Your task to perform on an android device: What's the weather going to be this weekend? Image 0: 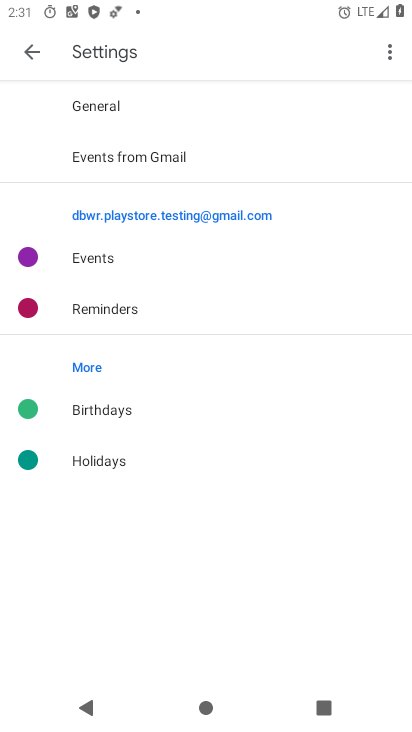
Step 0: press home button
Your task to perform on an android device: What's the weather going to be this weekend? Image 1: 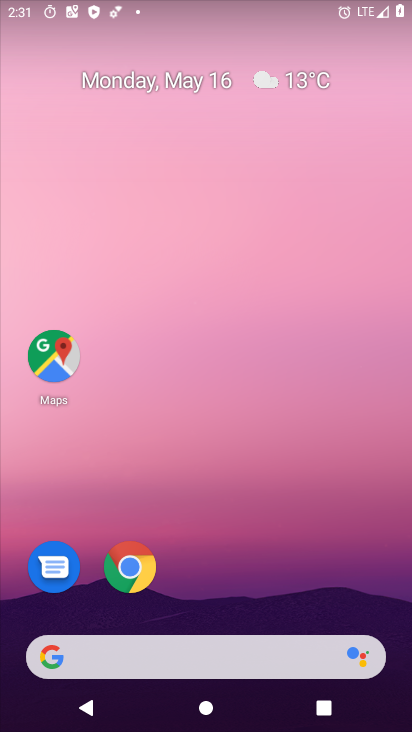
Step 1: drag from (227, 494) to (253, 303)
Your task to perform on an android device: What's the weather going to be this weekend? Image 2: 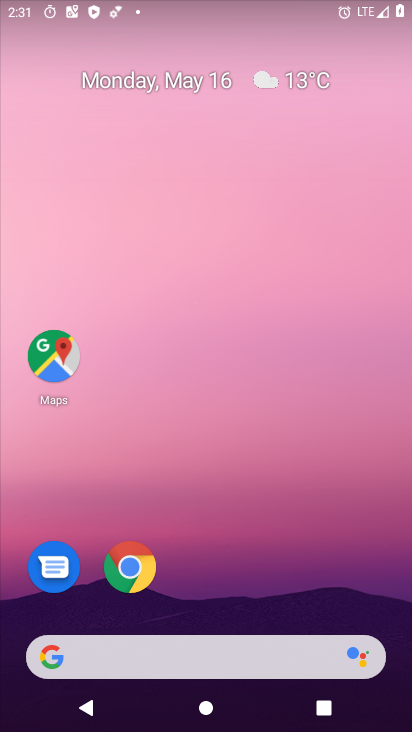
Step 2: click (108, 559)
Your task to perform on an android device: What's the weather going to be this weekend? Image 3: 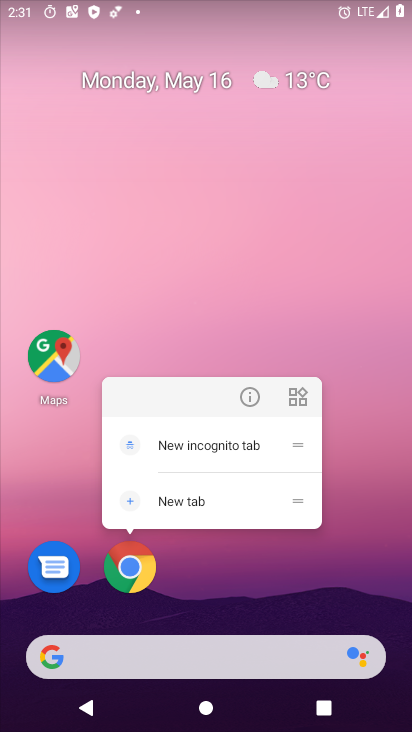
Step 3: click (153, 563)
Your task to perform on an android device: What's the weather going to be this weekend? Image 4: 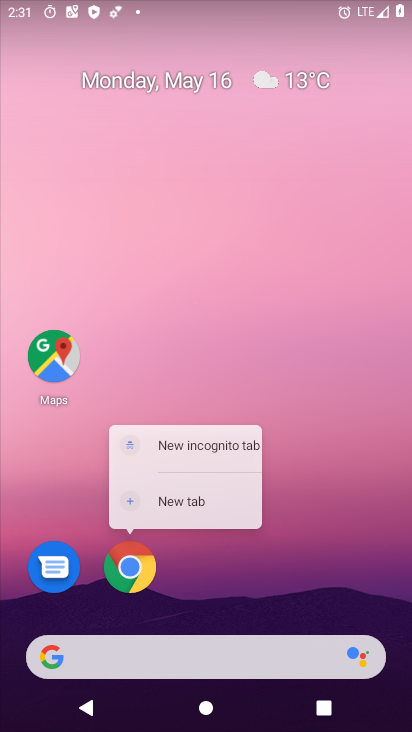
Step 4: drag from (195, 599) to (335, 115)
Your task to perform on an android device: What's the weather going to be this weekend? Image 5: 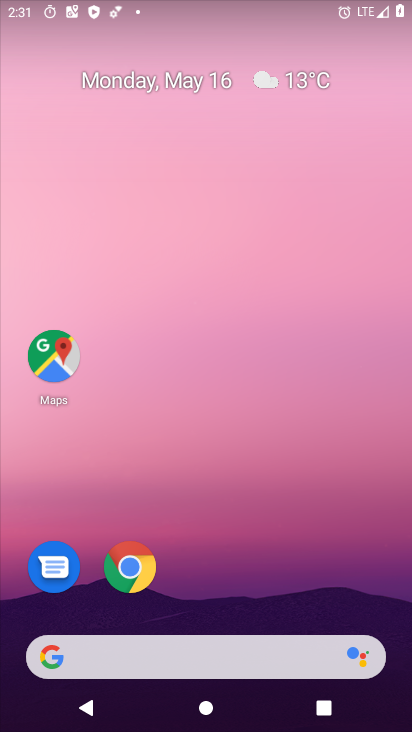
Step 5: drag from (213, 525) to (282, 104)
Your task to perform on an android device: What's the weather going to be this weekend? Image 6: 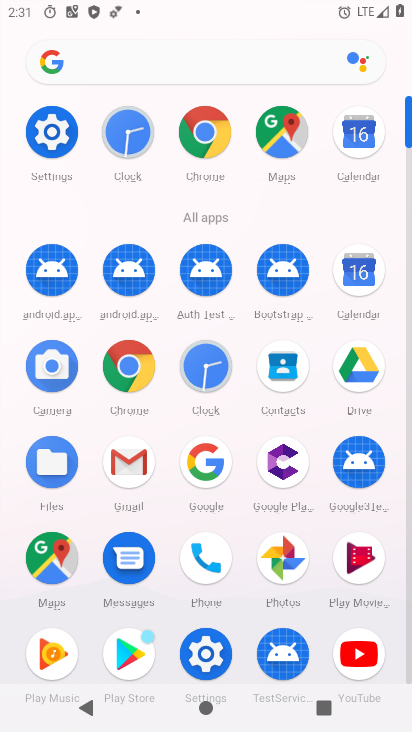
Step 6: click (205, 122)
Your task to perform on an android device: What's the weather going to be this weekend? Image 7: 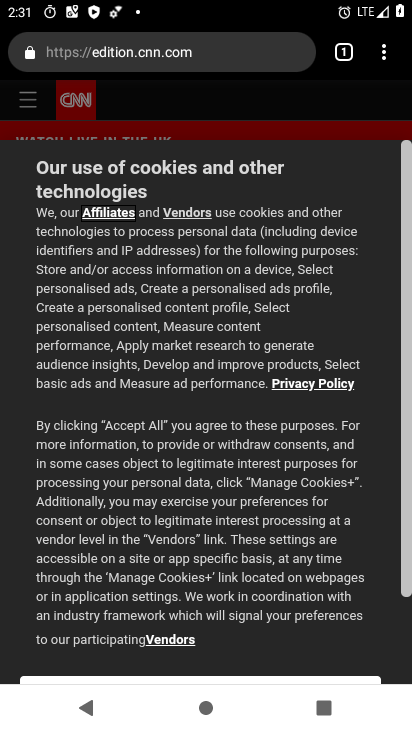
Step 7: click (253, 50)
Your task to perform on an android device: What's the weather going to be this weekend? Image 8: 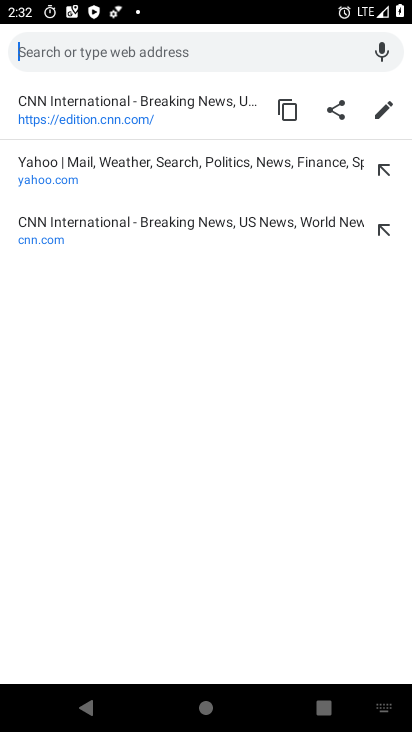
Step 8: type "What's the weather going to be this weekend?"
Your task to perform on an android device: What's the weather going to be this weekend? Image 9: 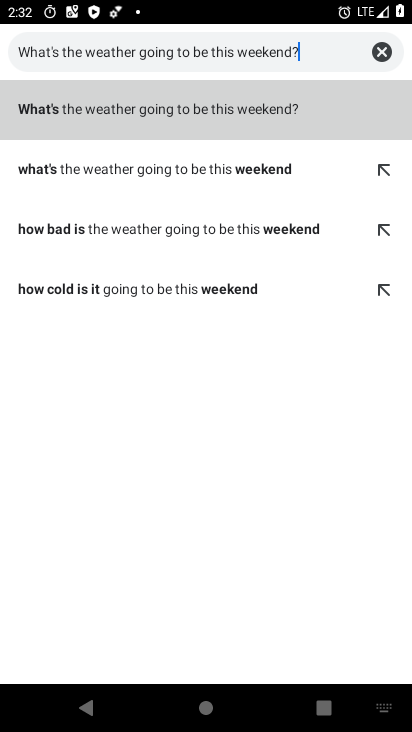
Step 9: click (242, 110)
Your task to perform on an android device: What's the weather going to be this weekend? Image 10: 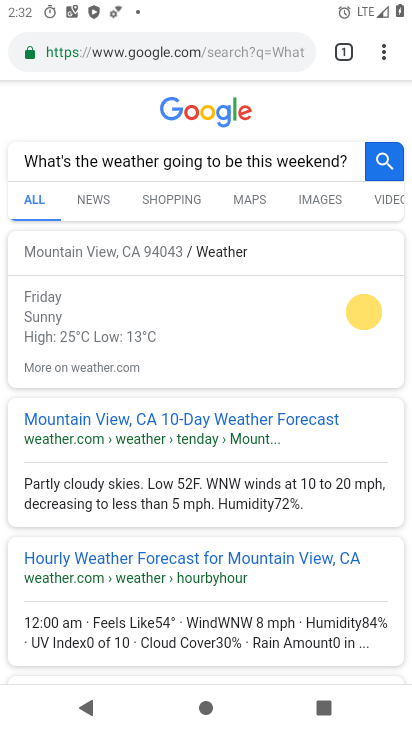
Step 10: task complete